Your task to perform on an android device: turn pop-ups on in chrome Image 0: 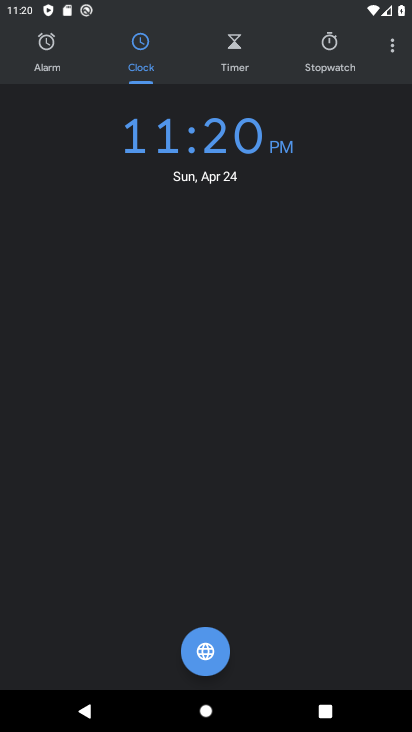
Step 0: press back button
Your task to perform on an android device: turn pop-ups on in chrome Image 1: 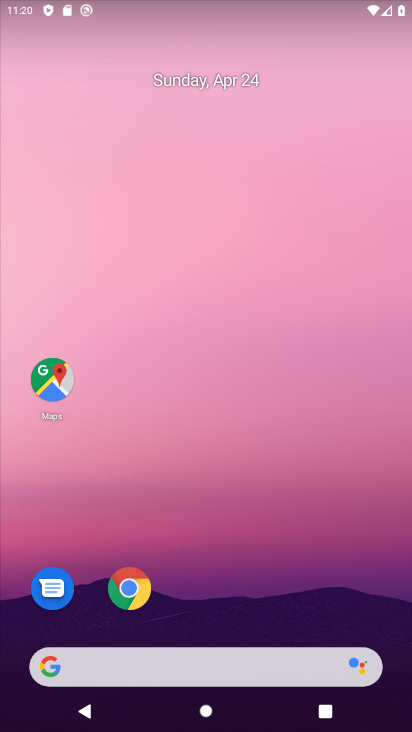
Step 1: click (145, 600)
Your task to perform on an android device: turn pop-ups on in chrome Image 2: 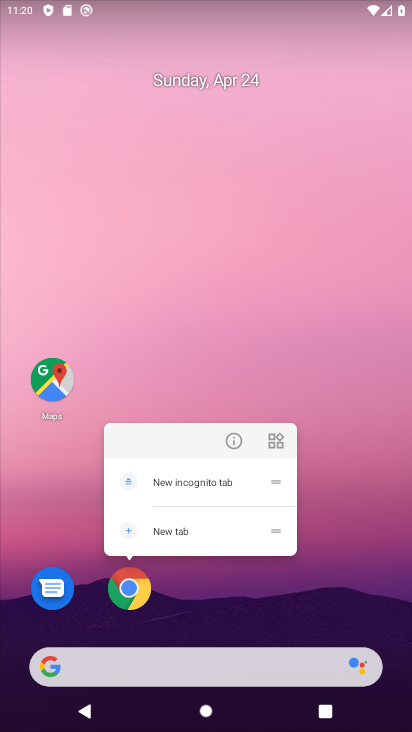
Step 2: click (126, 582)
Your task to perform on an android device: turn pop-ups on in chrome Image 3: 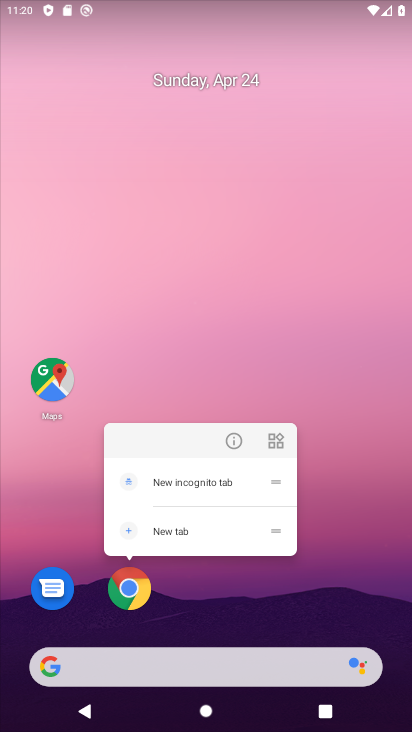
Step 3: click (138, 590)
Your task to perform on an android device: turn pop-ups on in chrome Image 4: 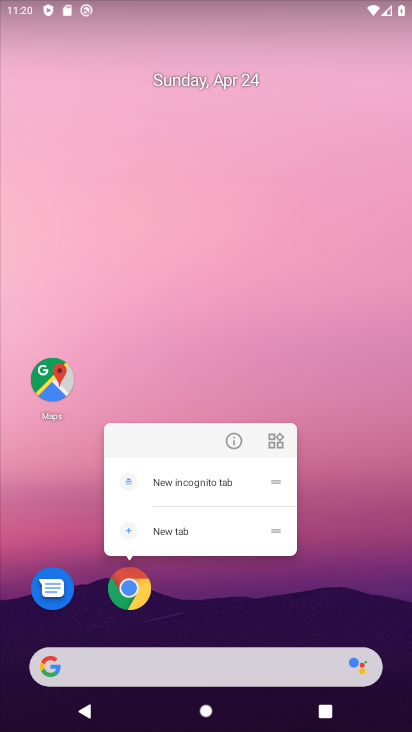
Step 4: click (138, 580)
Your task to perform on an android device: turn pop-ups on in chrome Image 5: 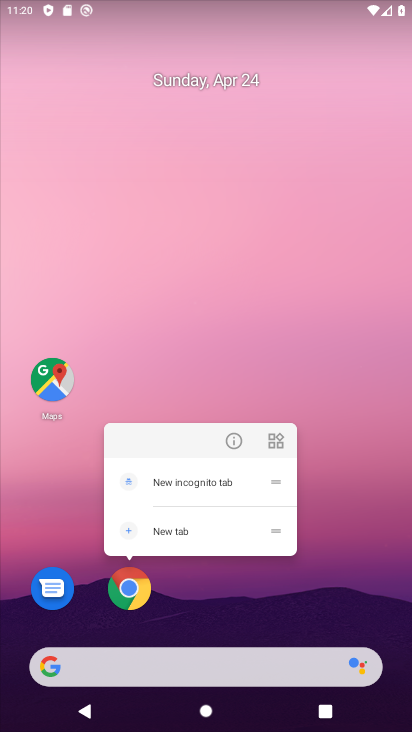
Step 5: click (142, 586)
Your task to perform on an android device: turn pop-ups on in chrome Image 6: 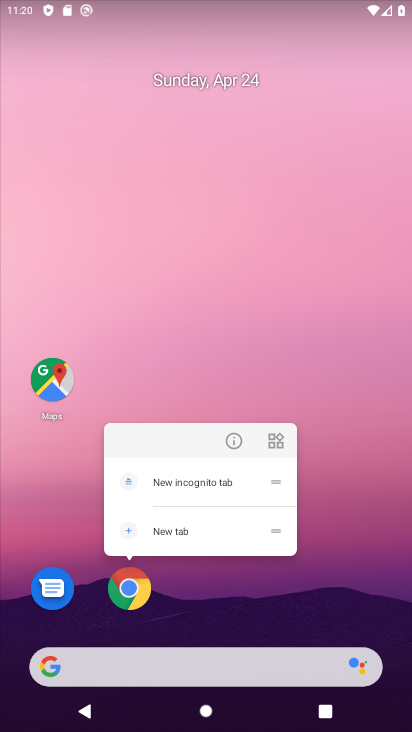
Step 6: click (138, 589)
Your task to perform on an android device: turn pop-ups on in chrome Image 7: 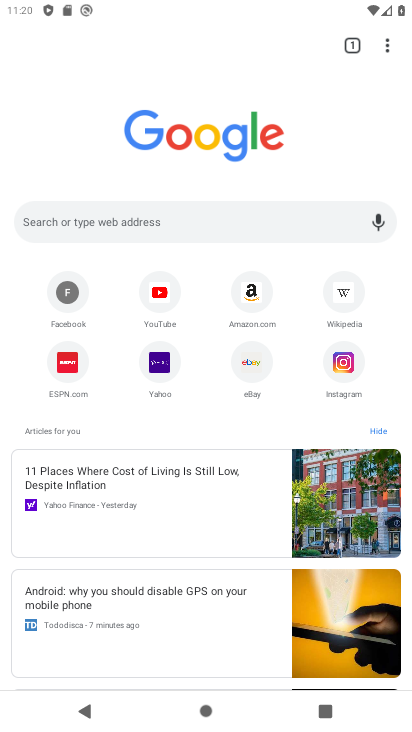
Step 7: click (386, 44)
Your task to perform on an android device: turn pop-ups on in chrome Image 8: 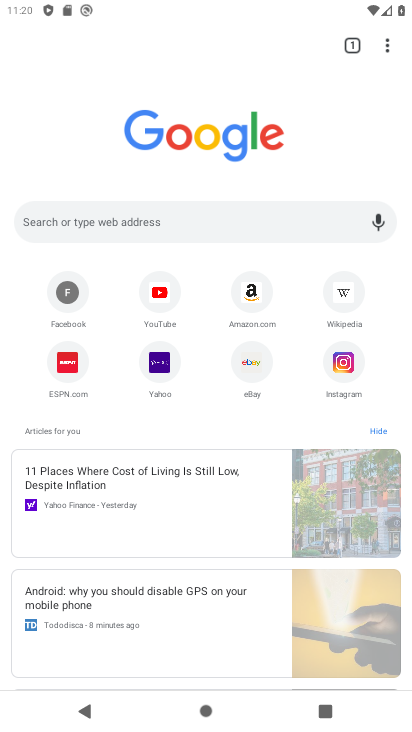
Step 8: drag from (386, 44) to (294, 367)
Your task to perform on an android device: turn pop-ups on in chrome Image 9: 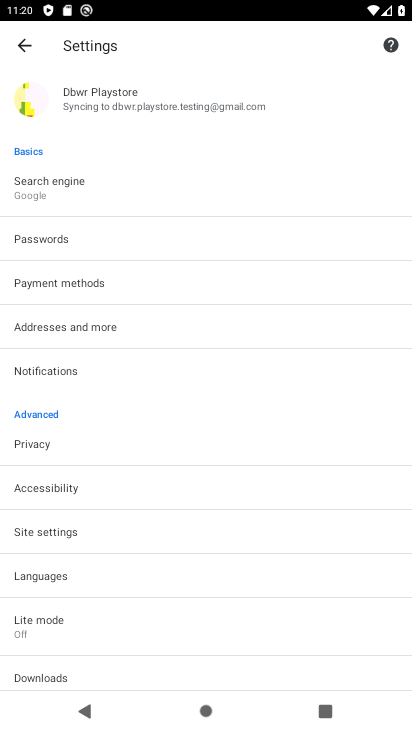
Step 9: click (104, 526)
Your task to perform on an android device: turn pop-ups on in chrome Image 10: 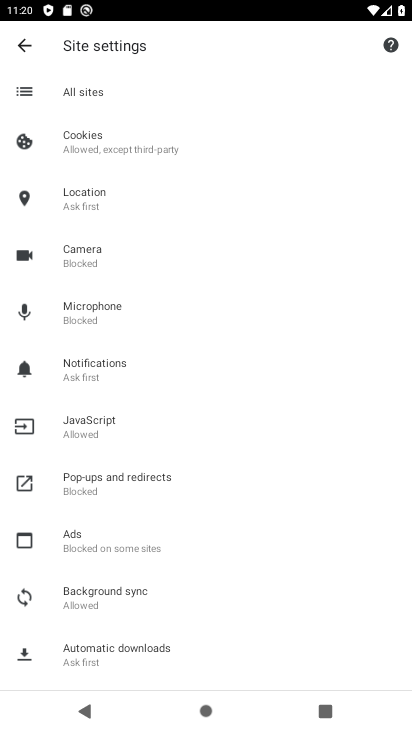
Step 10: click (212, 490)
Your task to perform on an android device: turn pop-ups on in chrome Image 11: 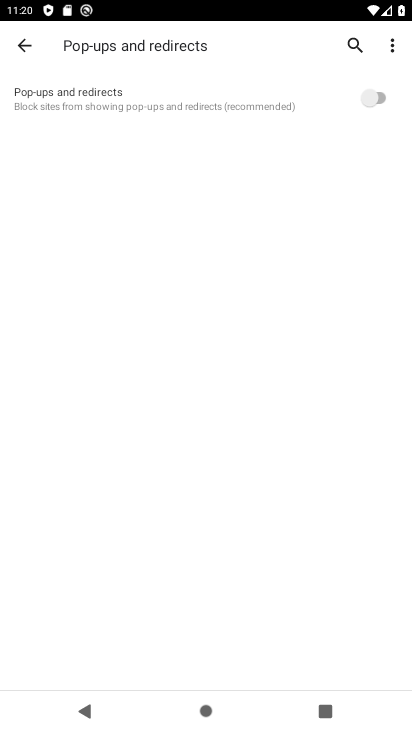
Step 11: click (396, 94)
Your task to perform on an android device: turn pop-ups on in chrome Image 12: 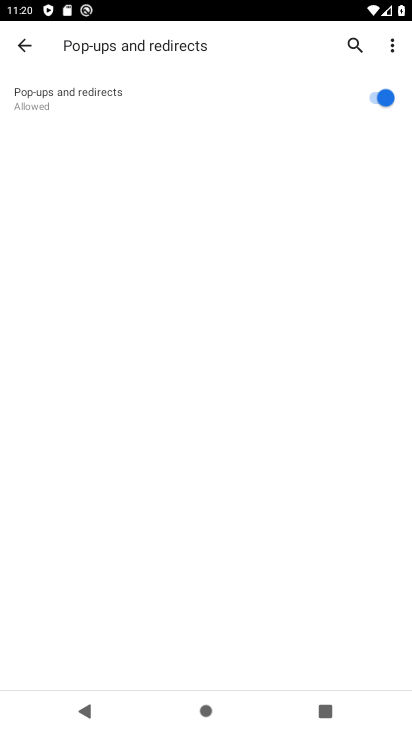
Step 12: task complete